Your task to perform on an android device: toggle notification dots Image 0: 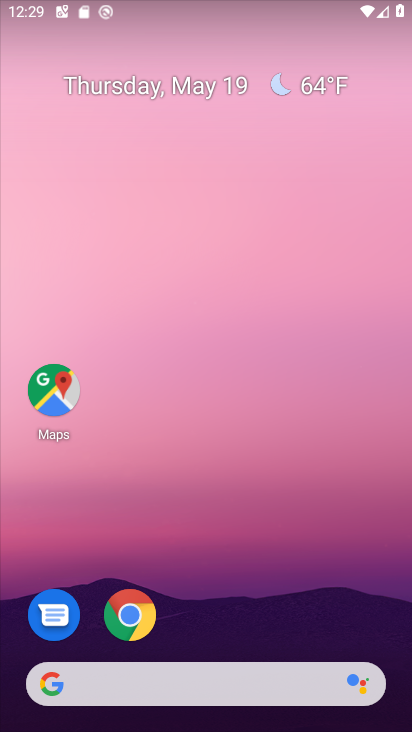
Step 0: drag from (148, 723) to (270, 276)
Your task to perform on an android device: toggle notification dots Image 1: 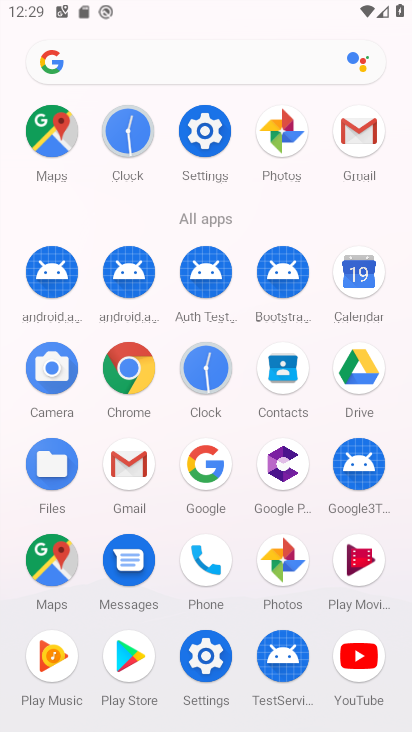
Step 1: click (189, 124)
Your task to perform on an android device: toggle notification dots Image 2: 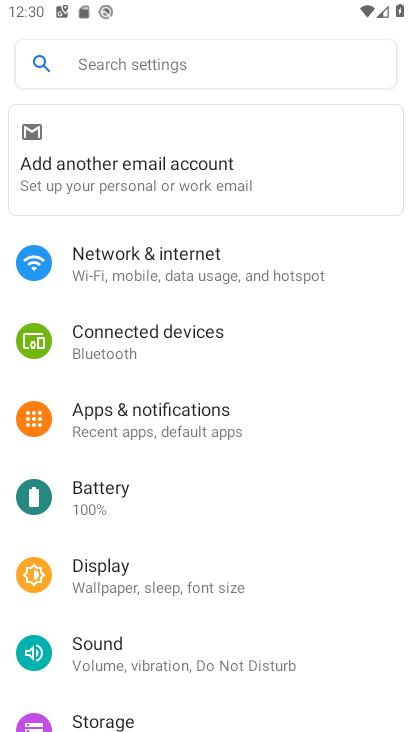
Step 2: click (146, 82)
Your task to perform on an android device: toggle notification dots Image 3: 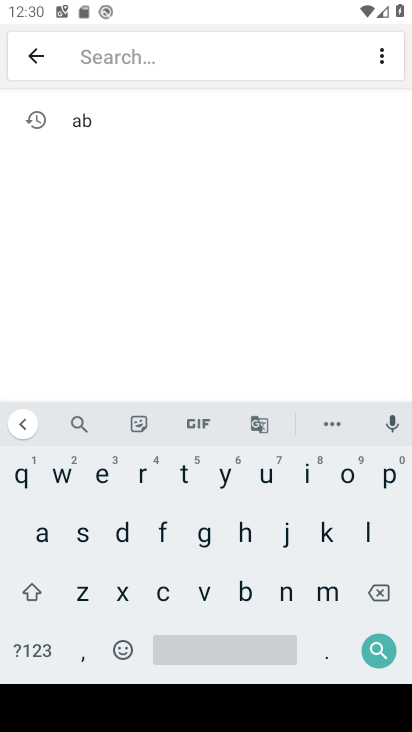
Step 3: click (132, 530)
Your task to perform on an android device: toggle notification dots Image 4: 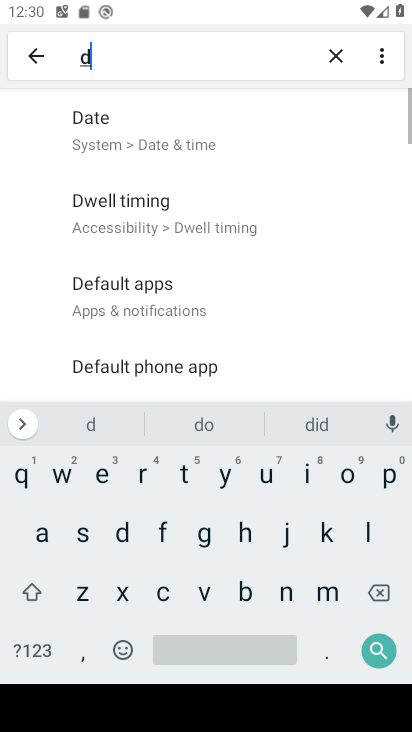
Step 4: click (347, 472)
Your task to perform on an android device: toggle notification dots Image 5: 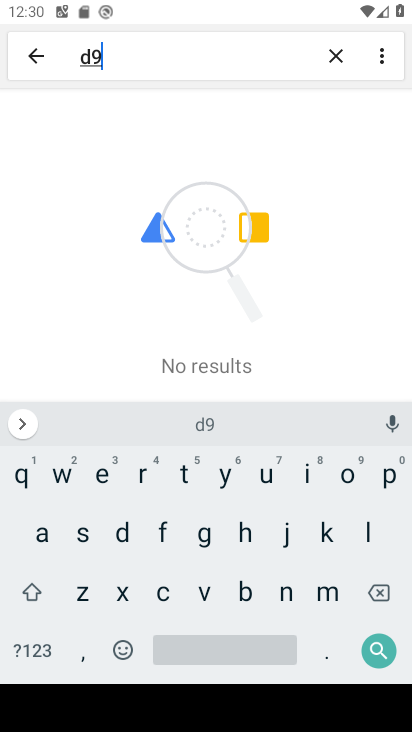
Step 5: click (180, 482)
Your task to perform on an android device: toggle notification dots Image 6: 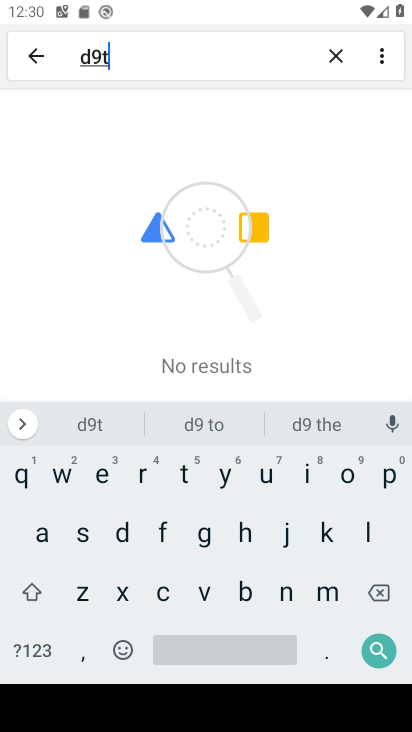
Step 6: click (384, 587)
Your task to perform on an android device: toggle notification dots Image 7: 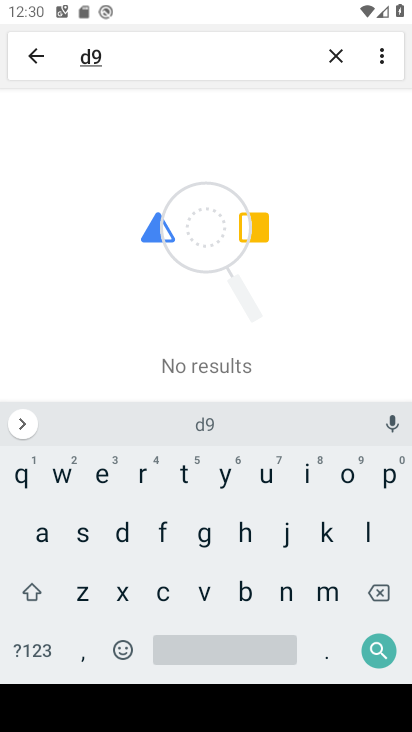
Step 7: click (382, 597)
Your task to perform on an android device: toggle notification dots Image 8: 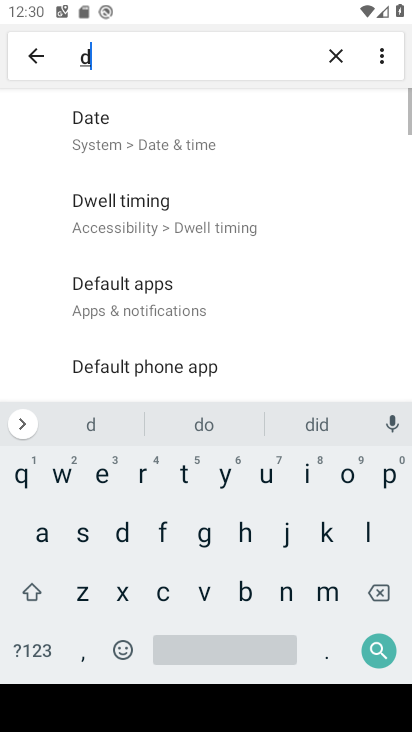
Step 8: click (351, 479)
Your task to perform on an android device: toggle notification dots Image 9: 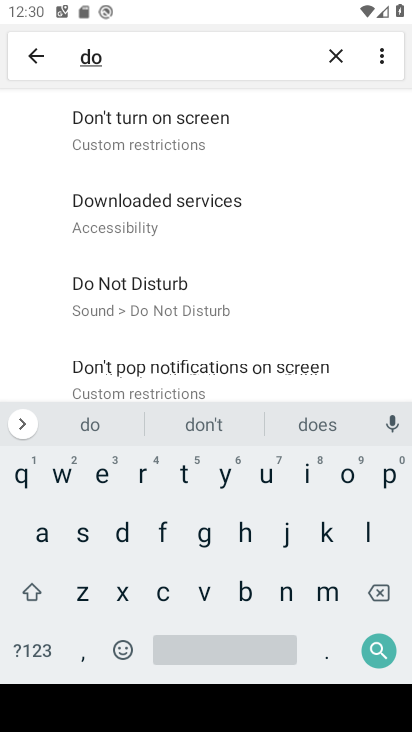
Step 9: click (179, 474)
Your task to perform on an android device: toggle notification dots Image 10: 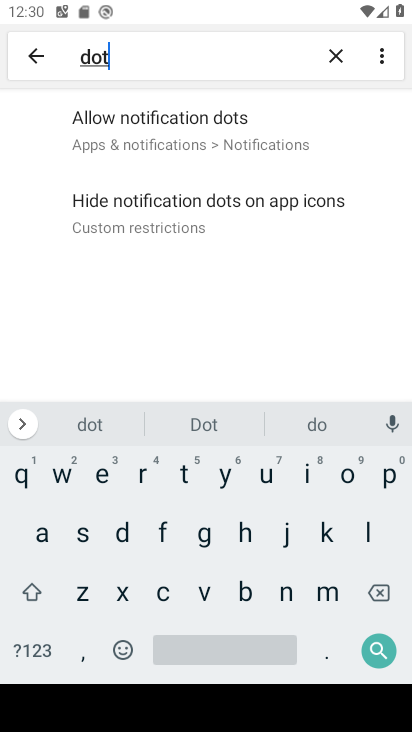
Step 10: click (218, 129)
Your task to perform on an android device: toggle notification dots Image 11: 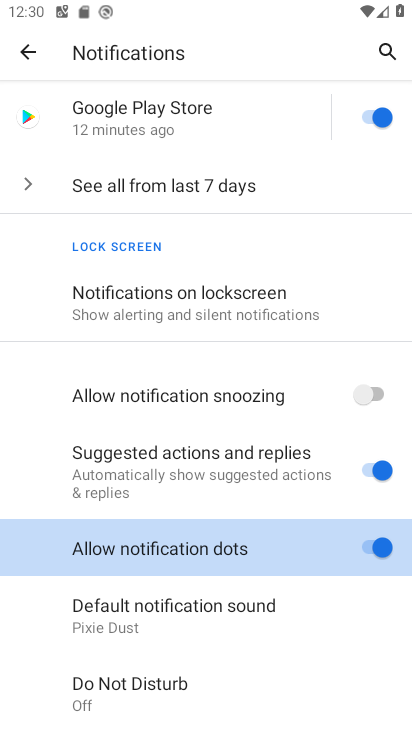
Step 11: task complete